Your task to perform on an android device: Go to display settings Image 0: 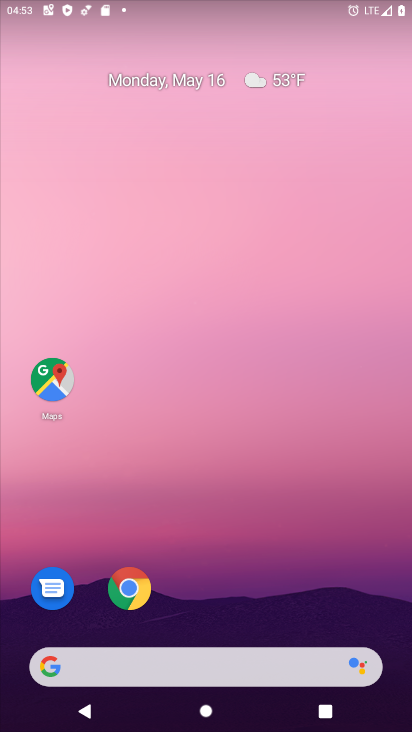
Step 0: drag from (222, 515) to (245, 13)
Your task to perform on an android device: Go to display settings Image 1: 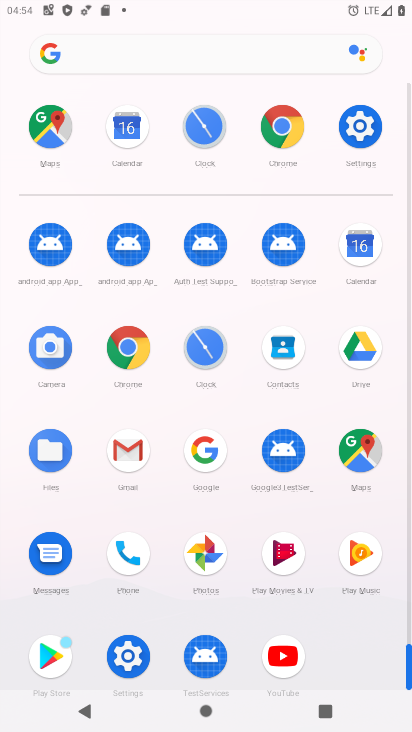
Step 1: drag from (4, 557) to (6, 291)
Your task to perform on an android device: Go to display settings Image 2: 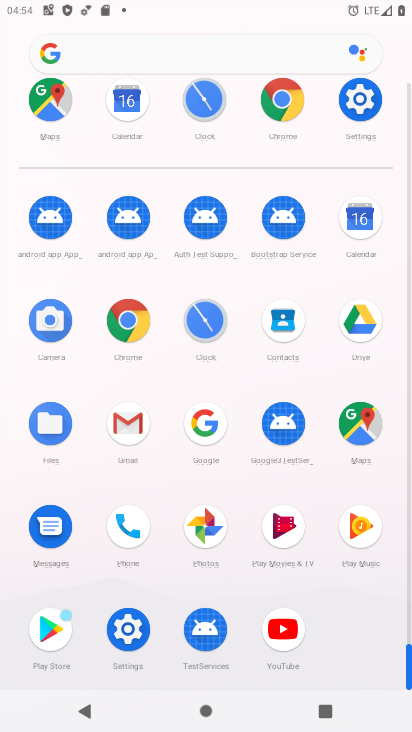
Step 2: click (355, 96)
Your task to perform on an android device: Go to display settings Image 3: 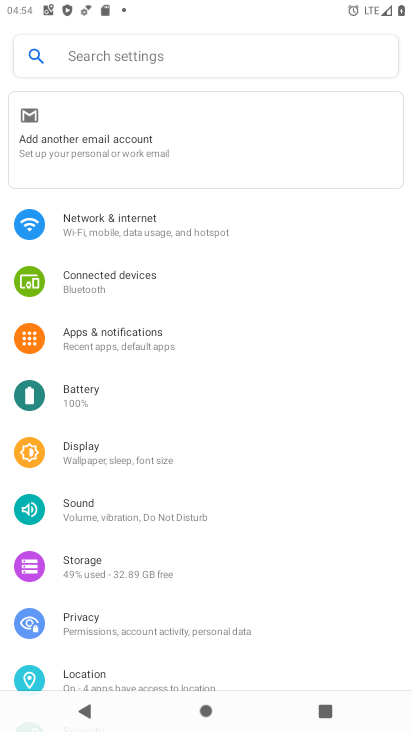
Step 3: click (118, 457)
Your task to perform on an android device: Go to display settings Image 4: 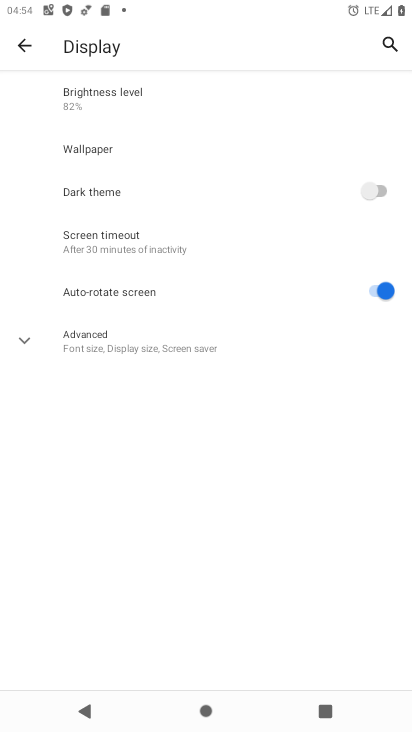
Step 4: click (48, 335)
Your task to perform on an android device: Go to display settings Image 5: 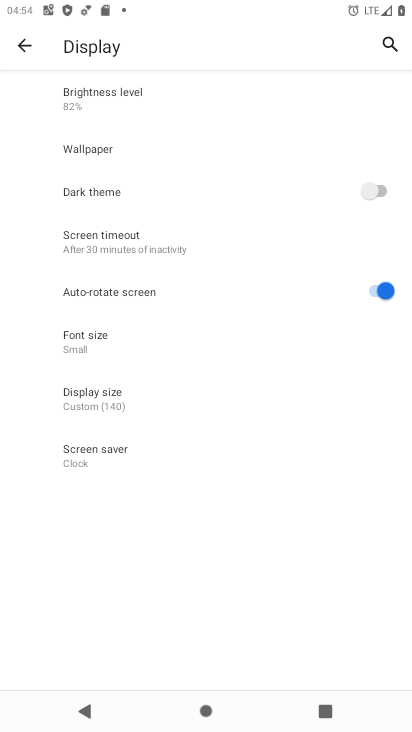
Step 5: task complete